Your task to perform on an android device: toggle translation in the chrome app Image 0: 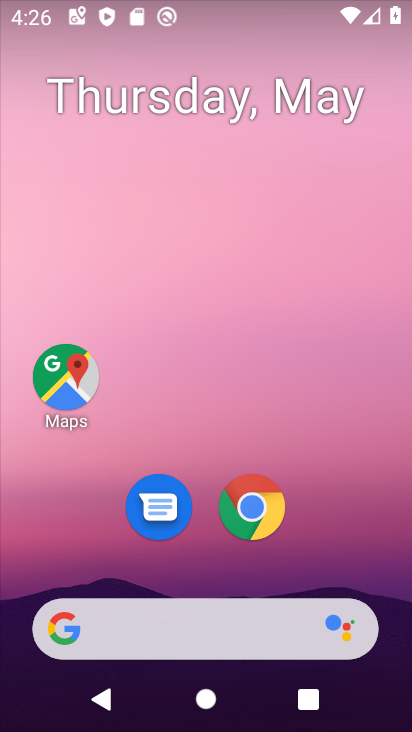
Step 0: click (247, 501)
Your task to perform on an android device: toggle translation in the chrome app Image 1: 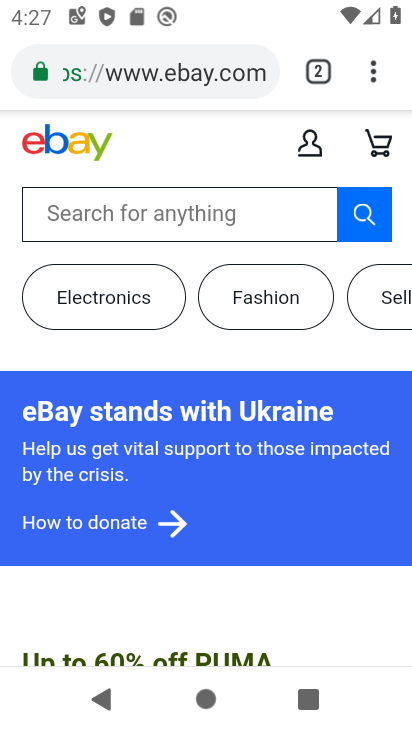
Step 1: click (364, 70)
Your task to perform on an android device: toggle translation in the chrome app Image 2: 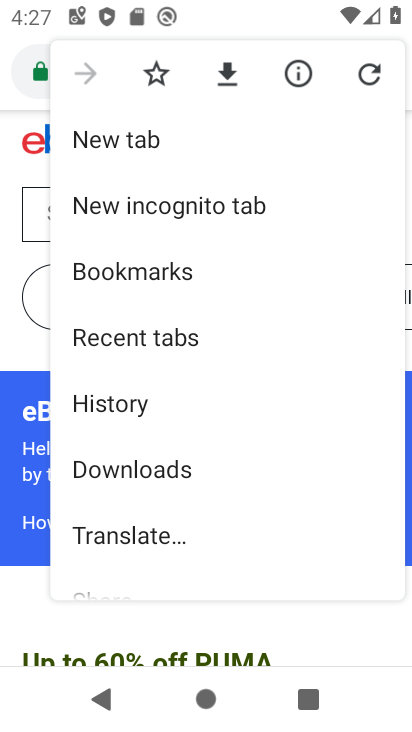
Step 2: drag from (202, 499) to (189, 156)
Your task to perform on an android device: toggle translation in the chrome app Image 3: 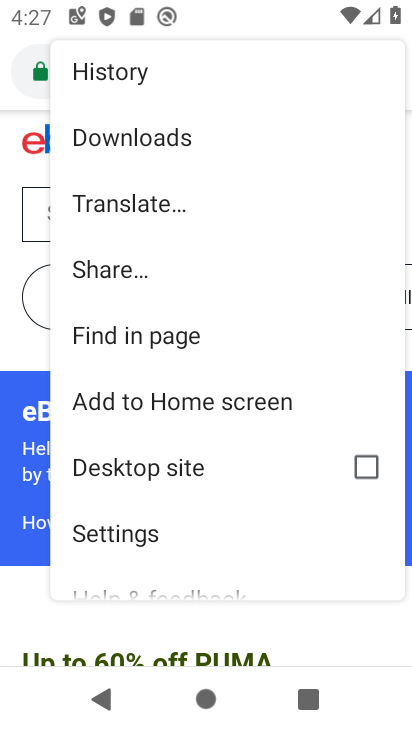
Step 3: click (136, 523)
Your task to perform on an android device: toggle translation in the chrome app Image 4: 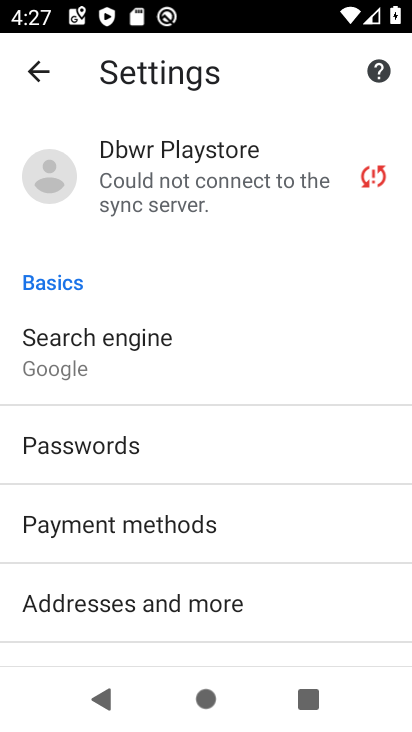
Step 4: drag from (130, 607) to (149, 288)
Your task to perform on an android device: toggle translation in the chrome app Image 5: 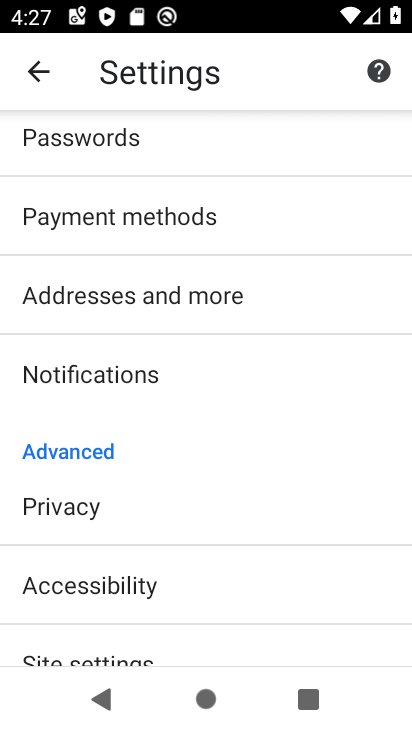
Step 5: drag from (127, 617) to (170, 331)
Your task to perform on an android device: toggle translation in the chrome app Image 6: 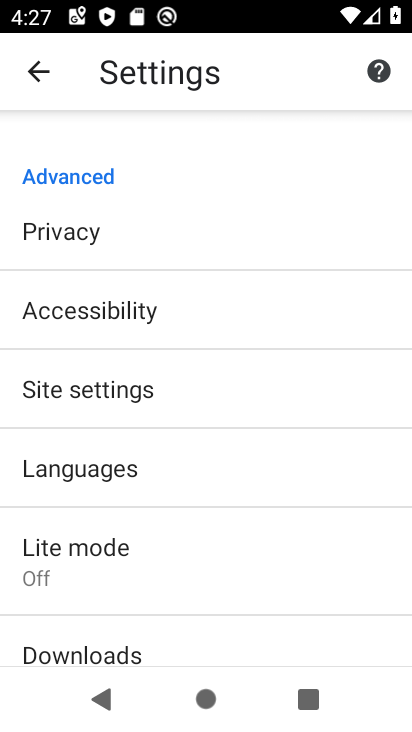
Step 6: click (122, 488)
Your task to perform on an android device: toggle translation in the chrome app Image 7: 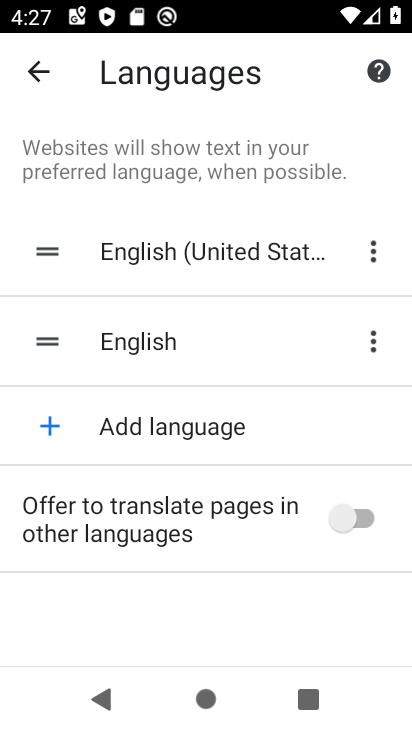
Step 7: click (355, 528)
Your task to perform on an android device: toggle translation in the chrome app Image 8: 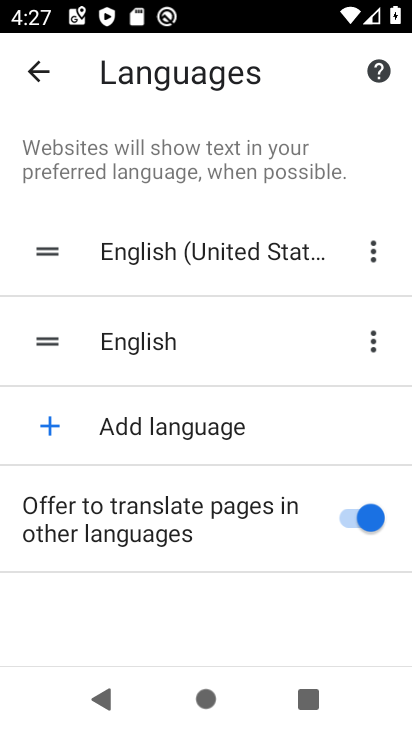
Step 8: task complete